Your task to perform on an android device: turn on sleep mode Image 0: 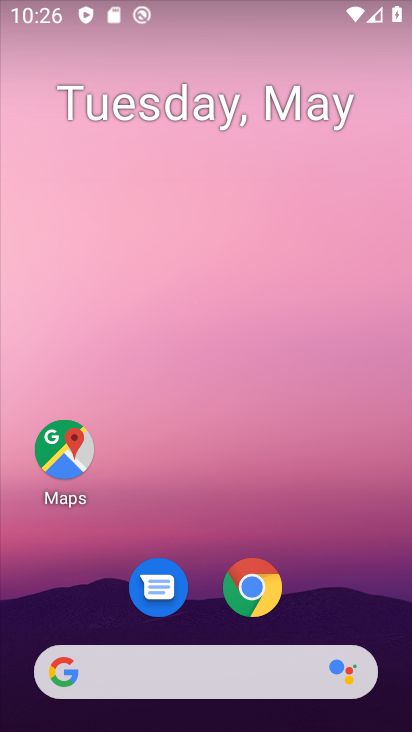
Step 0: drag from (344, 585) to (321, 122)
Your task to perform on an android device: turn on sleep mode Image 1: 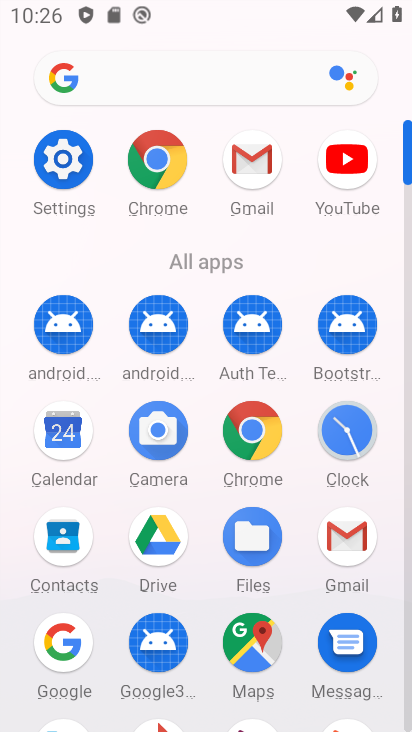
Step 1: drag from (245, 610) to (248, 316)
Your task to perform on an android device: turn on sleep mode Image 2: 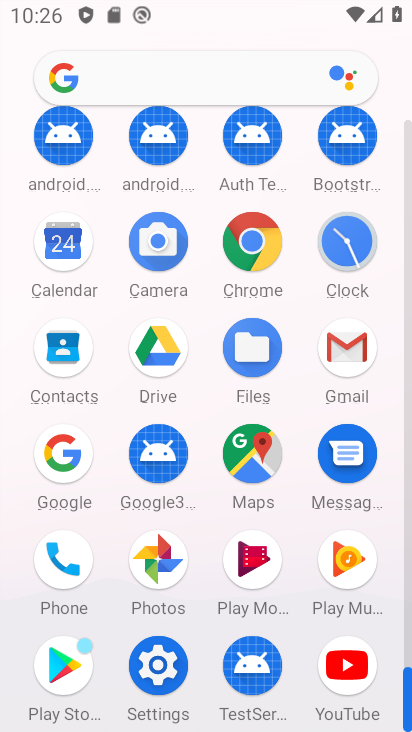
Step 2: click (149, 659)
Your task to perform on an android device: turn on sleep mode Image 3: 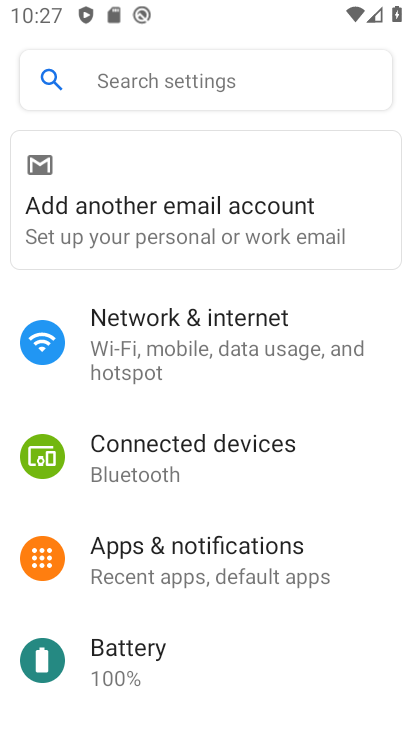
Step 3: click (207, 80)
Your task to perform on an android device: turn on sleep mode Image 4: 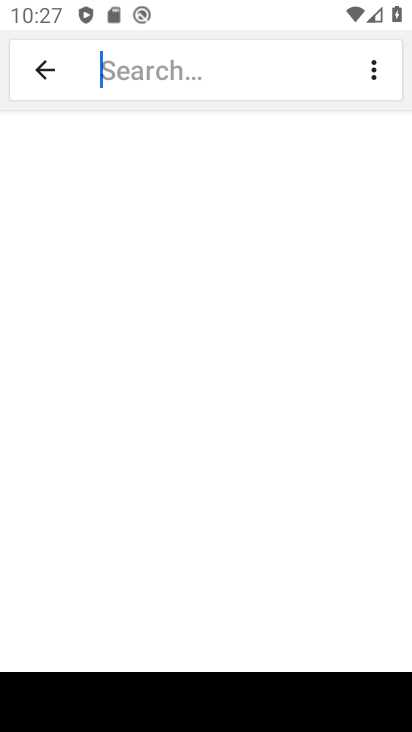
Step 4: type "sleep mode"
Your task to perform on an android device: turn on sleep mode Image 5: 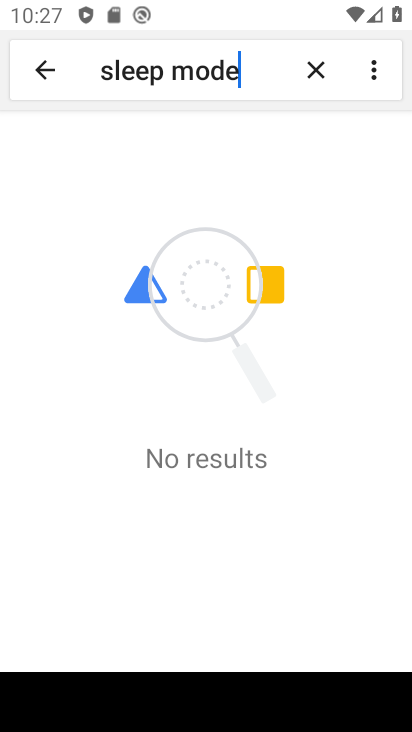
Step 5: task complete